Your task to perform on an android device: Open Google Chrome and click the shortcut for Amazon.com Image 0: 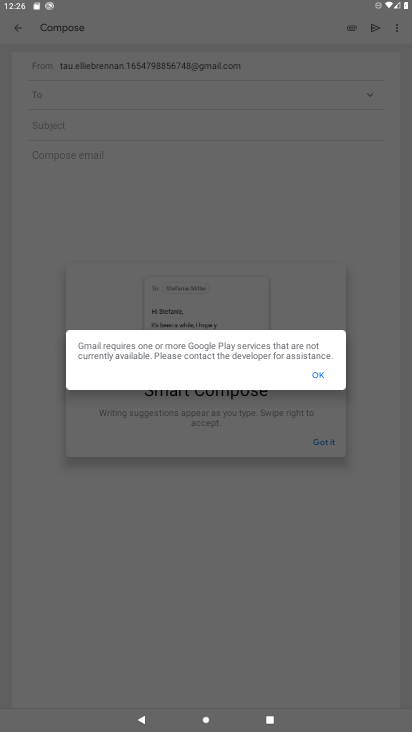
Step 0: press home button
Your task to perform on an android device: Open Google Chrome and click the shortcut for Amazon.com Image 1: 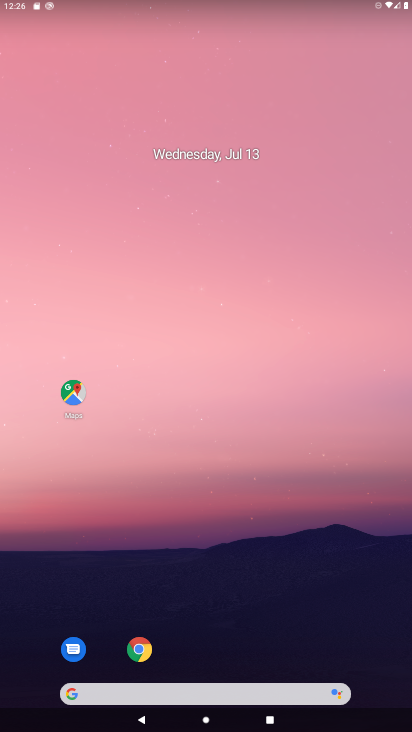
Step 1: click (138, 652)
Your task to perform on an android device: Open Google Chrome and click the shortcut for Amazon.com Image 2: 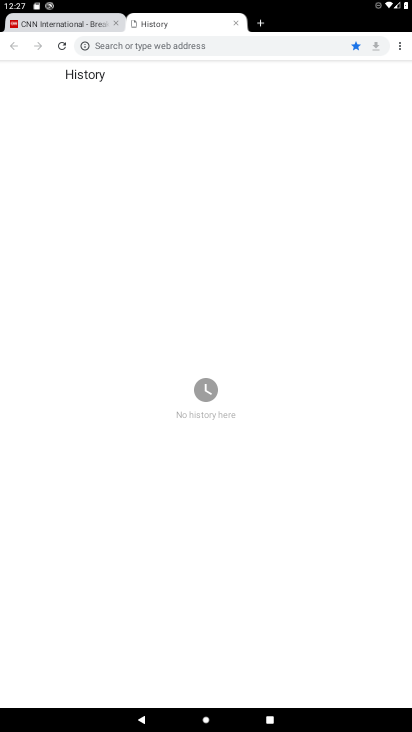
Step 2: click (239, 23)
Your task to perform on an android device: Open Google Chrome and click the shortcut for Amazon.com Image 3: 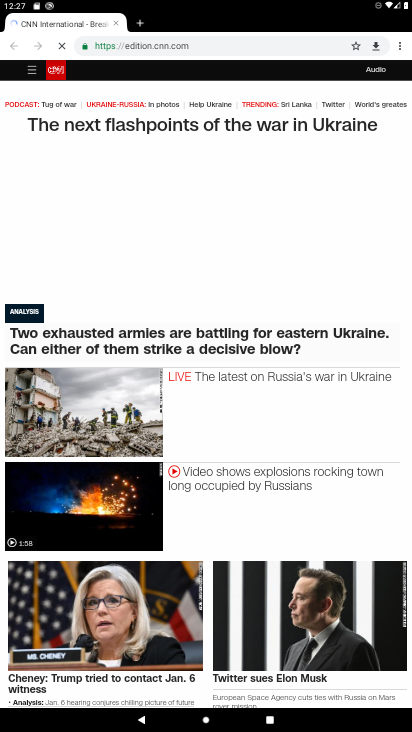
Step 3: click (141, 27)
Your task to perform on an android device: Open Google Chrome and click the shortcut for Amazon.com Image 4: 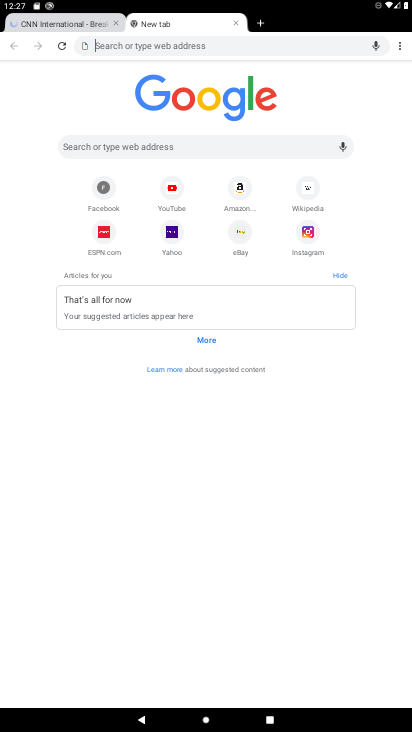
Step 4: click (236, 187)
Your task to perform on an android device: Open Google Chrome and click the shortcut for Amazon.com Image 5: 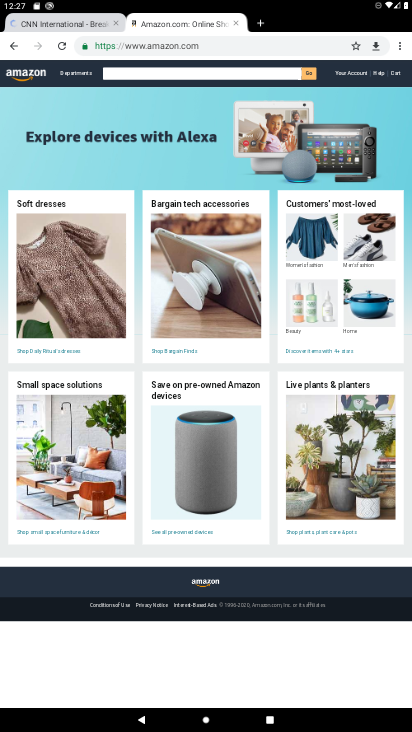
Step 5: task complete